Your task to perform on an android device: Go to privacy settings Image 0: 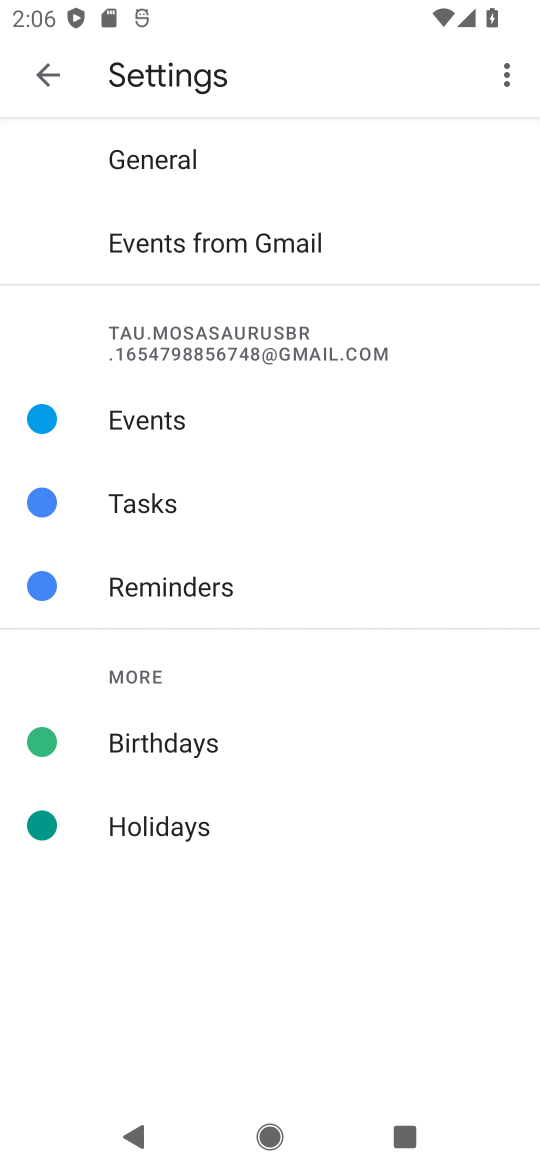
Step 0: press home button
Your task to perform on an android device: Go to privacy settings Image 1: 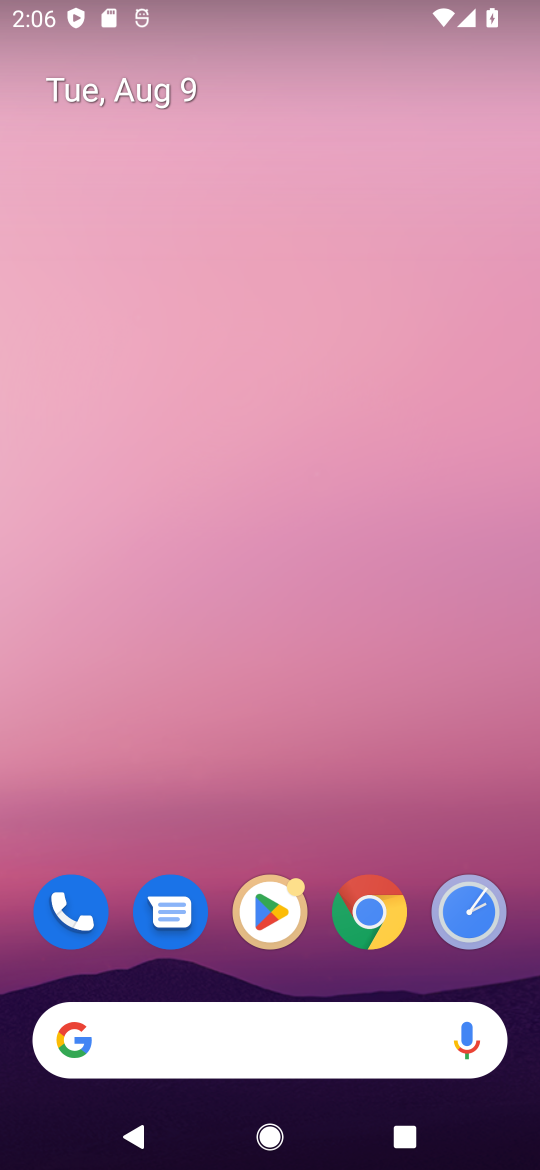
Step 1: drag from (300, 790) to (195, 35)
Your task to perform on an android device: Go to privacy settings Image 2: 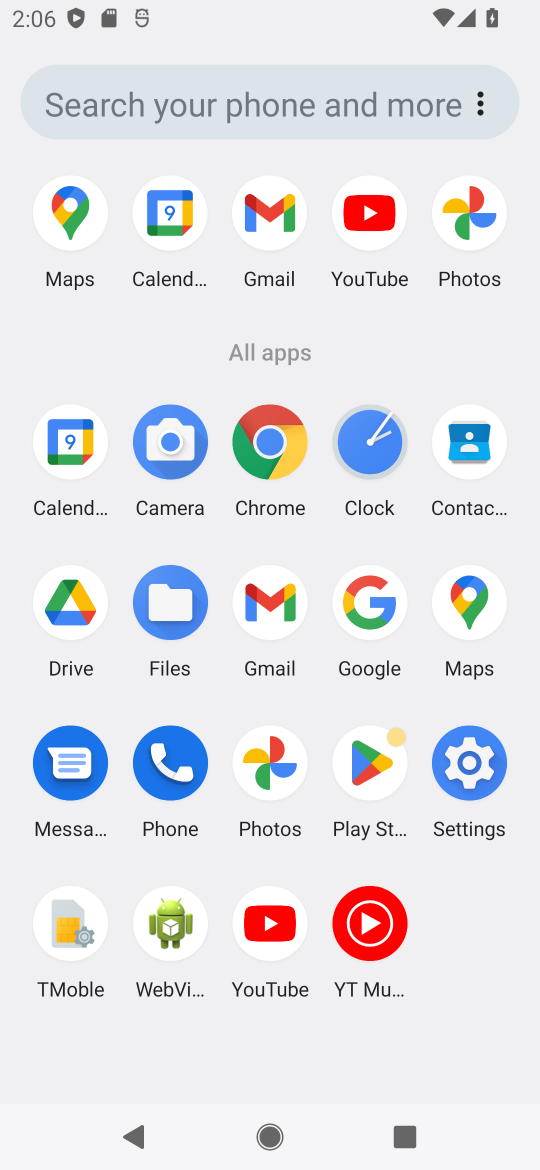
Step 2: click (472, 765)
Your task to perform on an android device: Go to privacy settings Image 3: 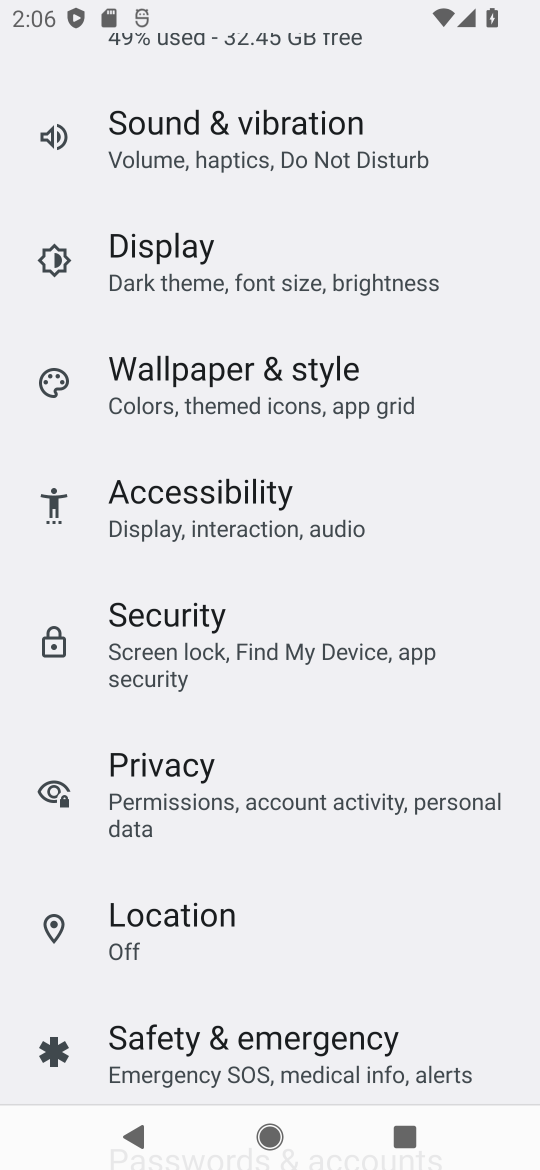
Step 3: click (185, 771)
Your task to perform on an android device: Go to privacy settings Image 4: 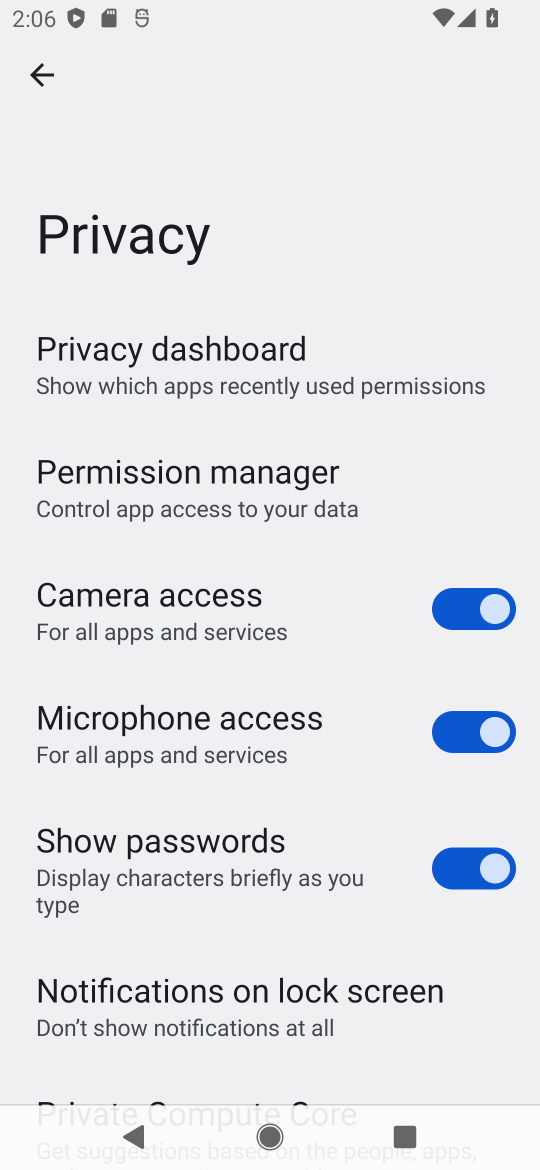
Step 4: task complete